Your task to perform on an android device: open app "Google Maps" Image 0: 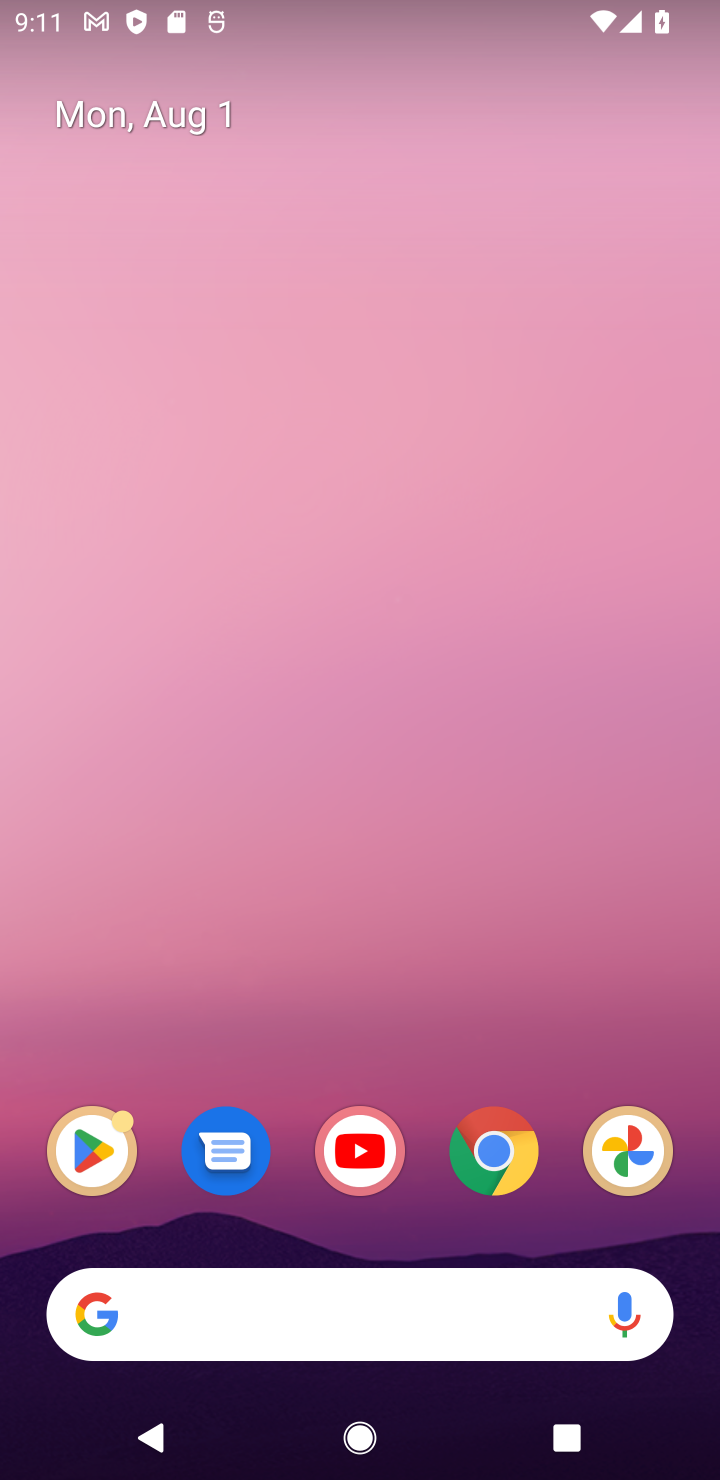
Step 0: drag from (507, 1419) to (416, 585)
Your task to perform on an android device: open app "Google Maps" Image 1: 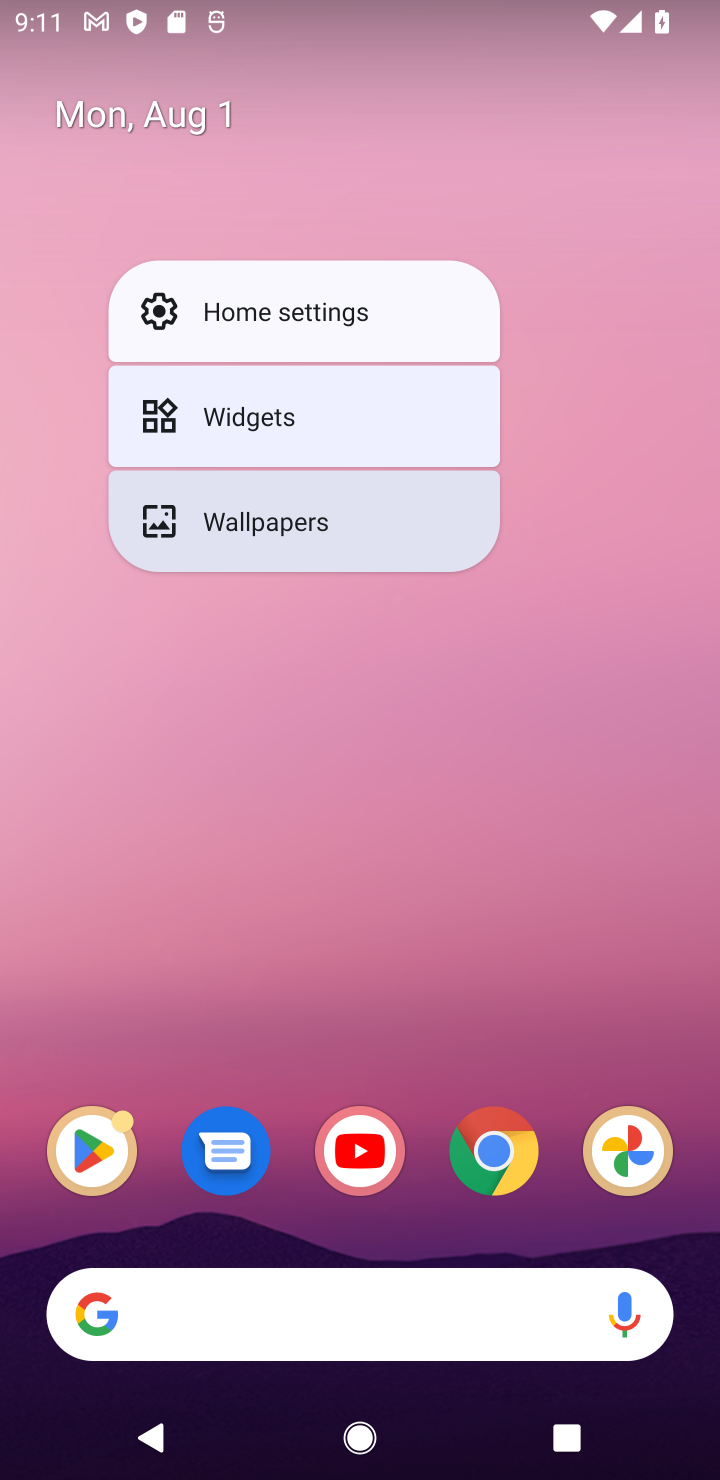
Step 1: drag from (482, 821) to (320, 302)
Your task to perform on an android device: open app "Google Maps" Image 2: 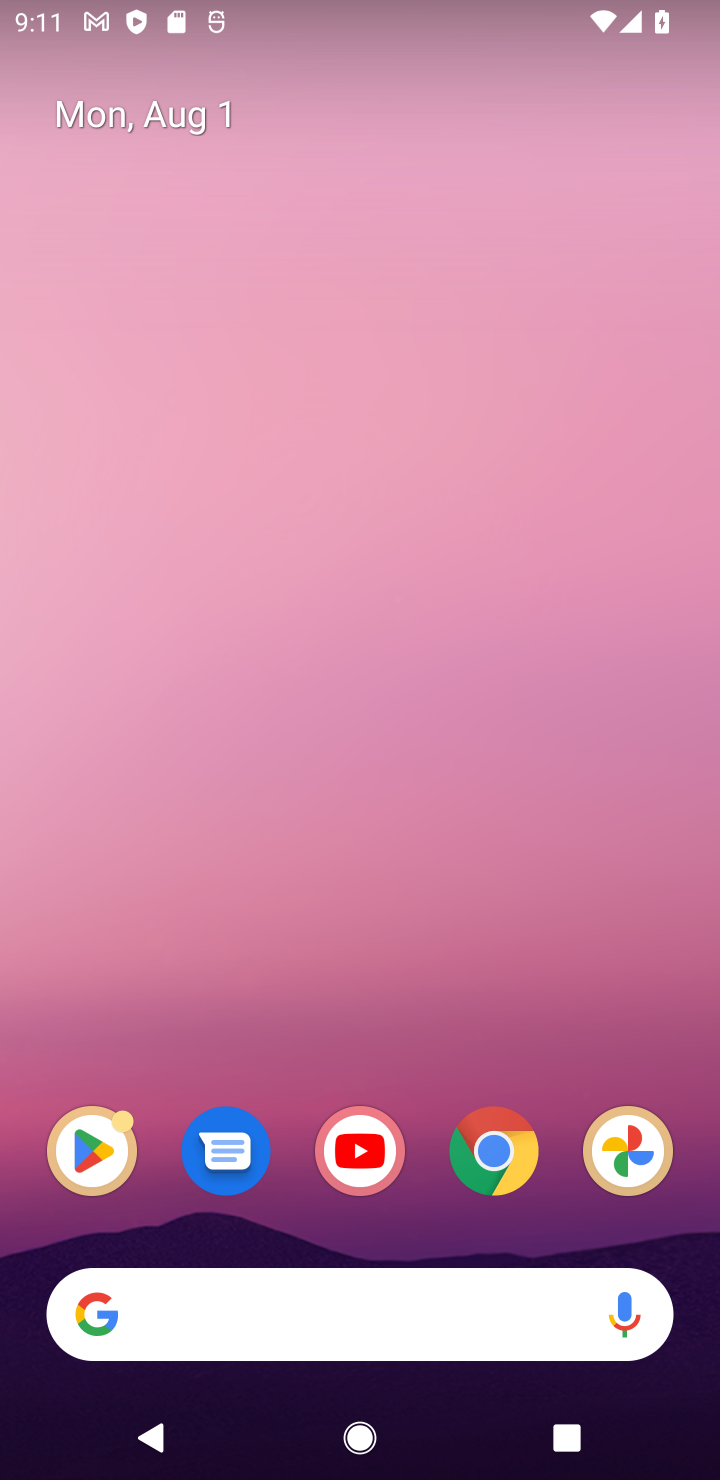
Step 2: drag from (223, 217) to (252, 430)
Your task to perform on an android device: open app "Google Maps" Image 3: 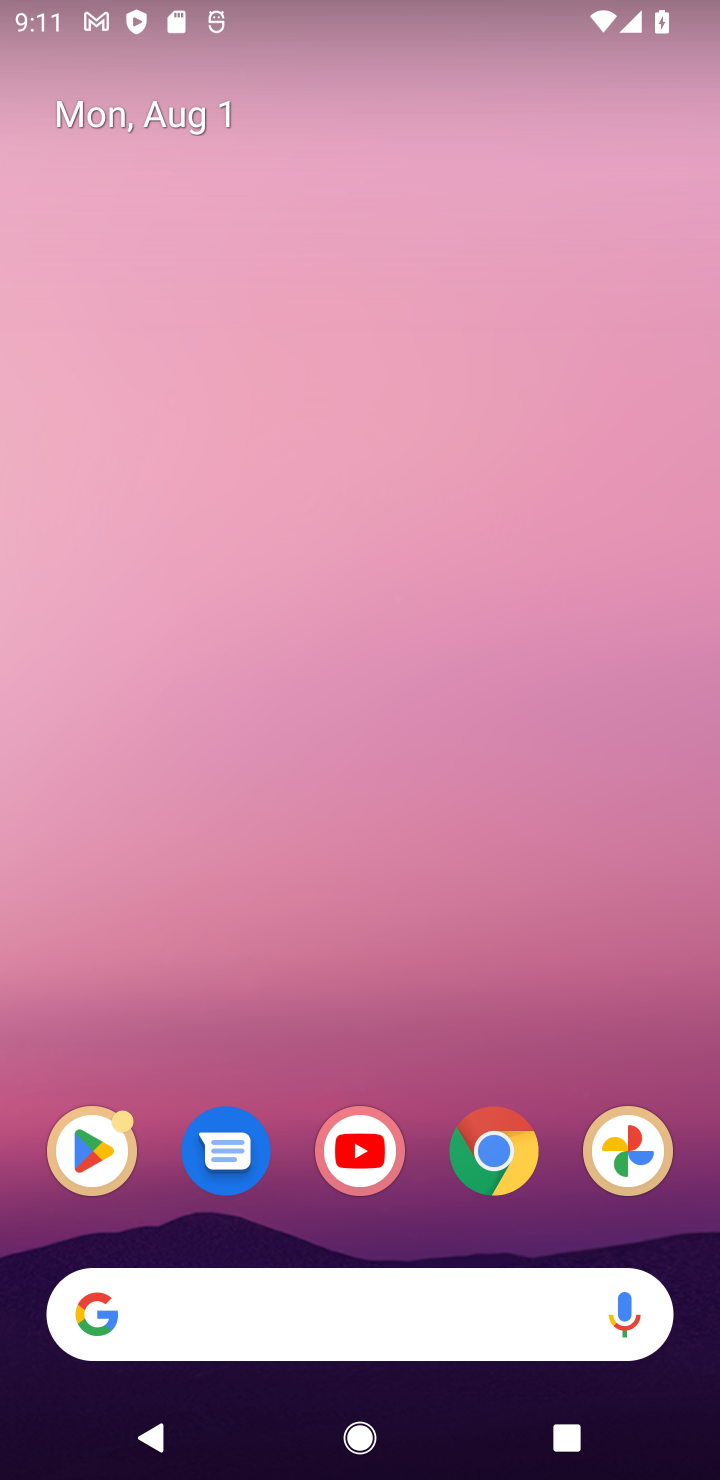
Step 3: drag from (357, 855) to (322, 319)
Your task to perform on an android device: open app "Google Maps" Image 4: 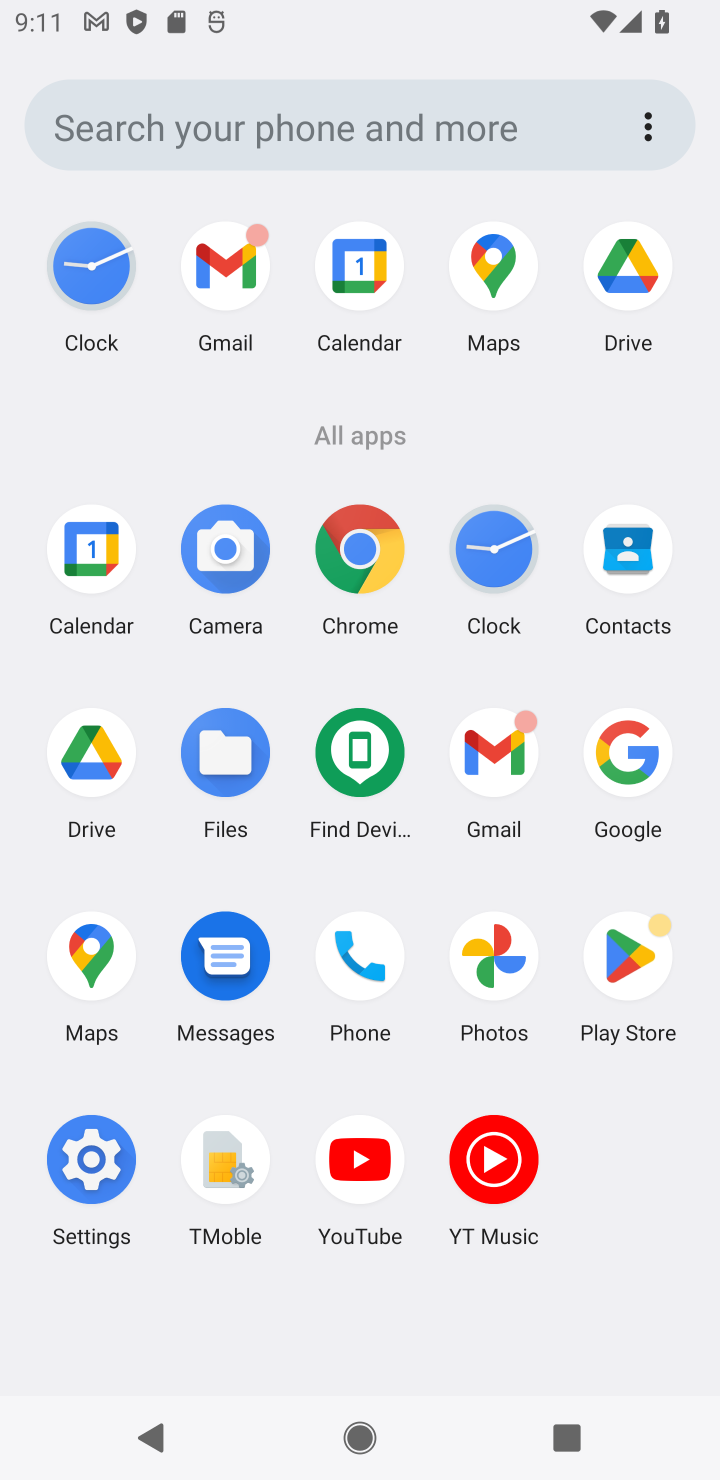
Step 4: drag from (427, 1167) to (361, 151)
Your task to perform on an android device: open app "Google Maps" Image 5: 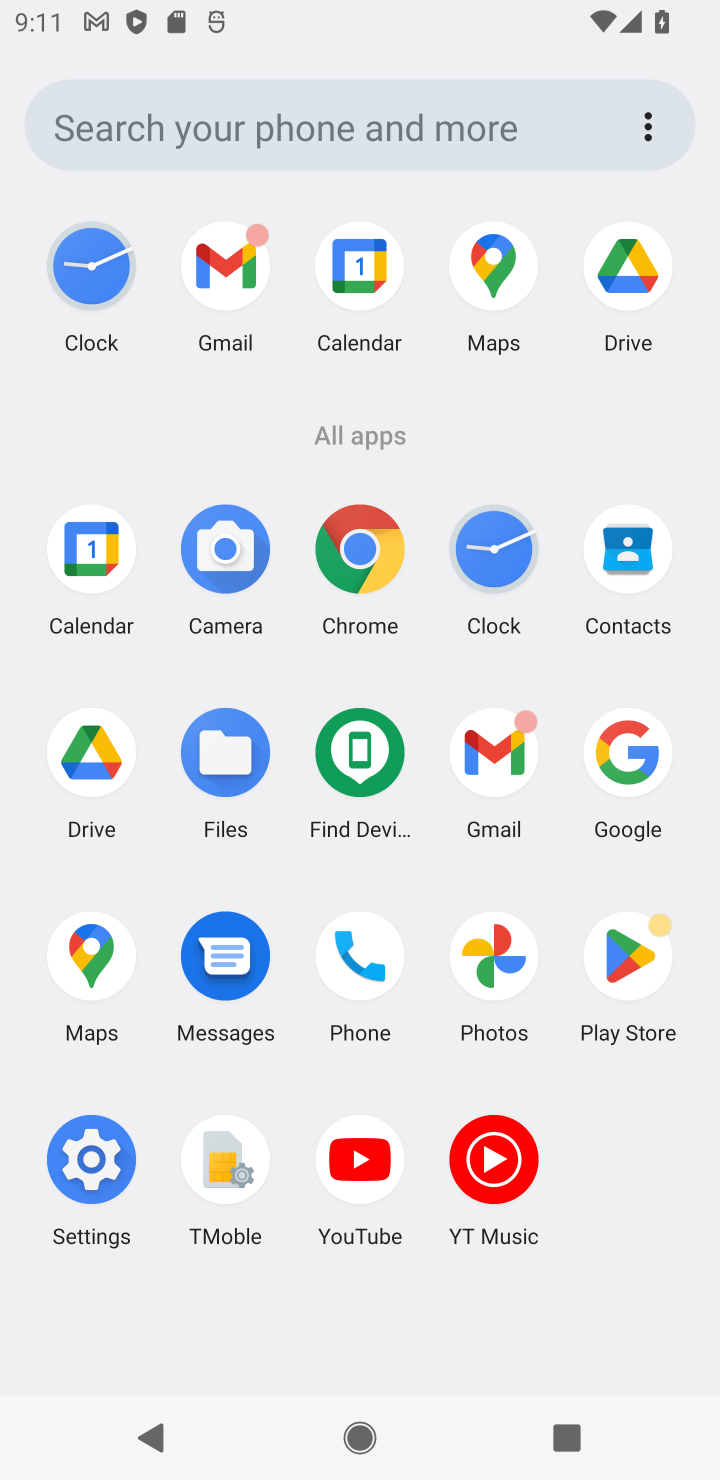
Step 5: click (88, 948)
Your task to perform on an android device: open app "Google Maps" Image 6: 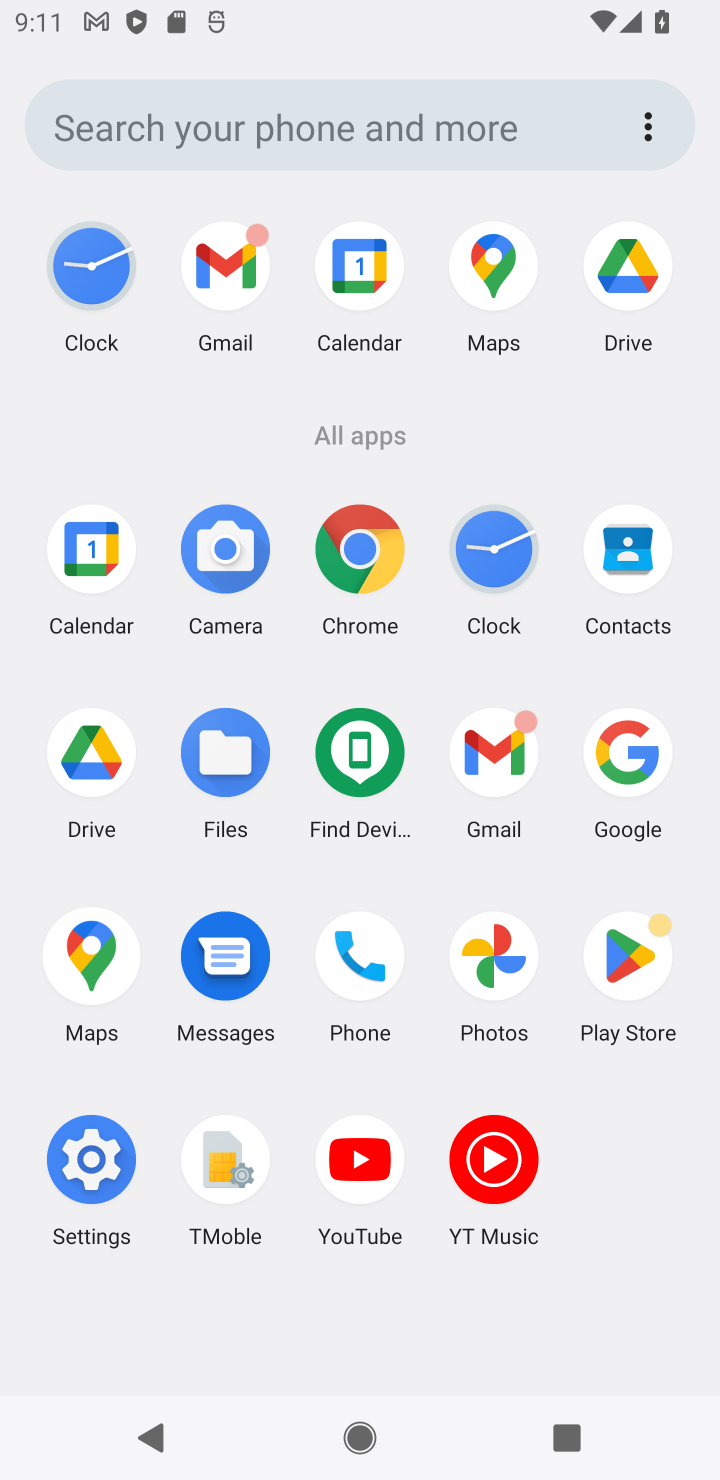
Step 6: click (91, 952)
Your task to perform on an android device: open app "Google Maps" Image 7: 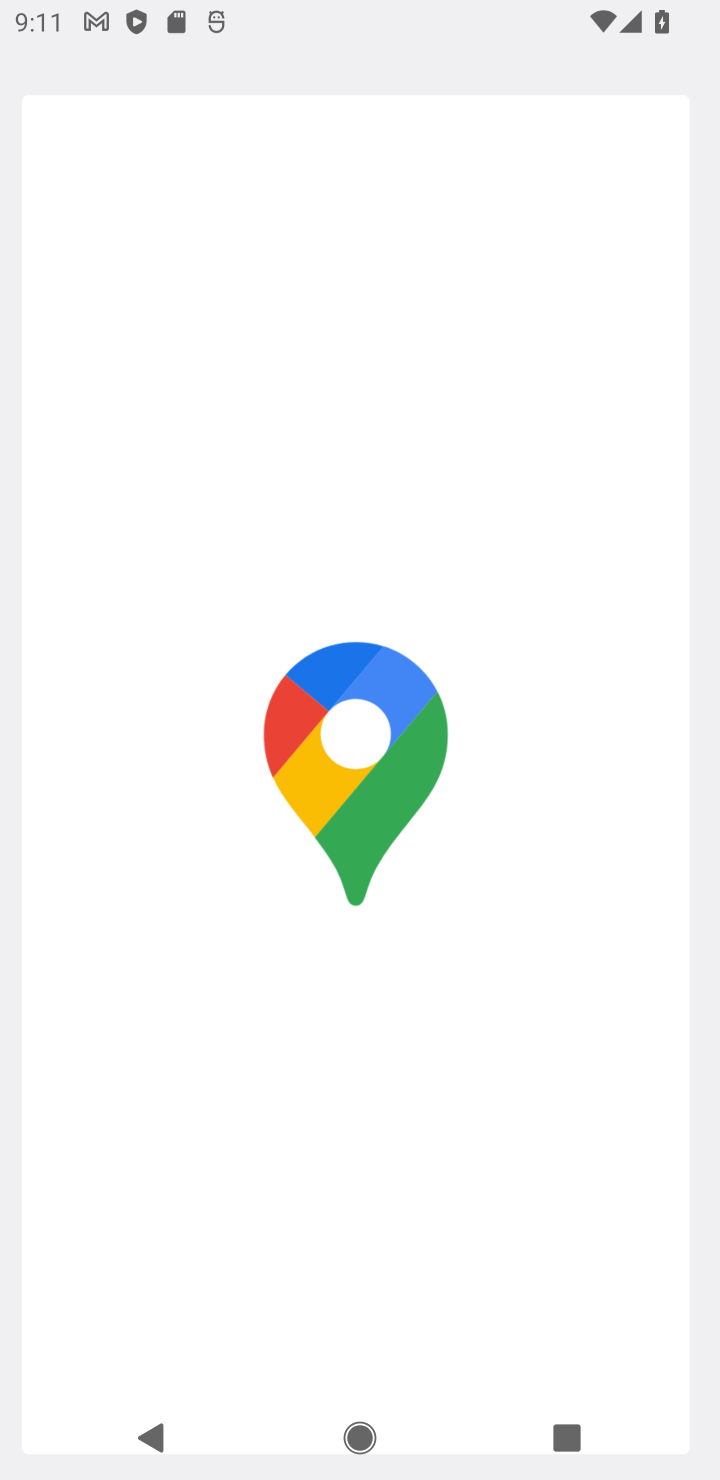
Step 7: click (109, 938)
Your task to perform on an android device: open app "Google Maps" Image 8: 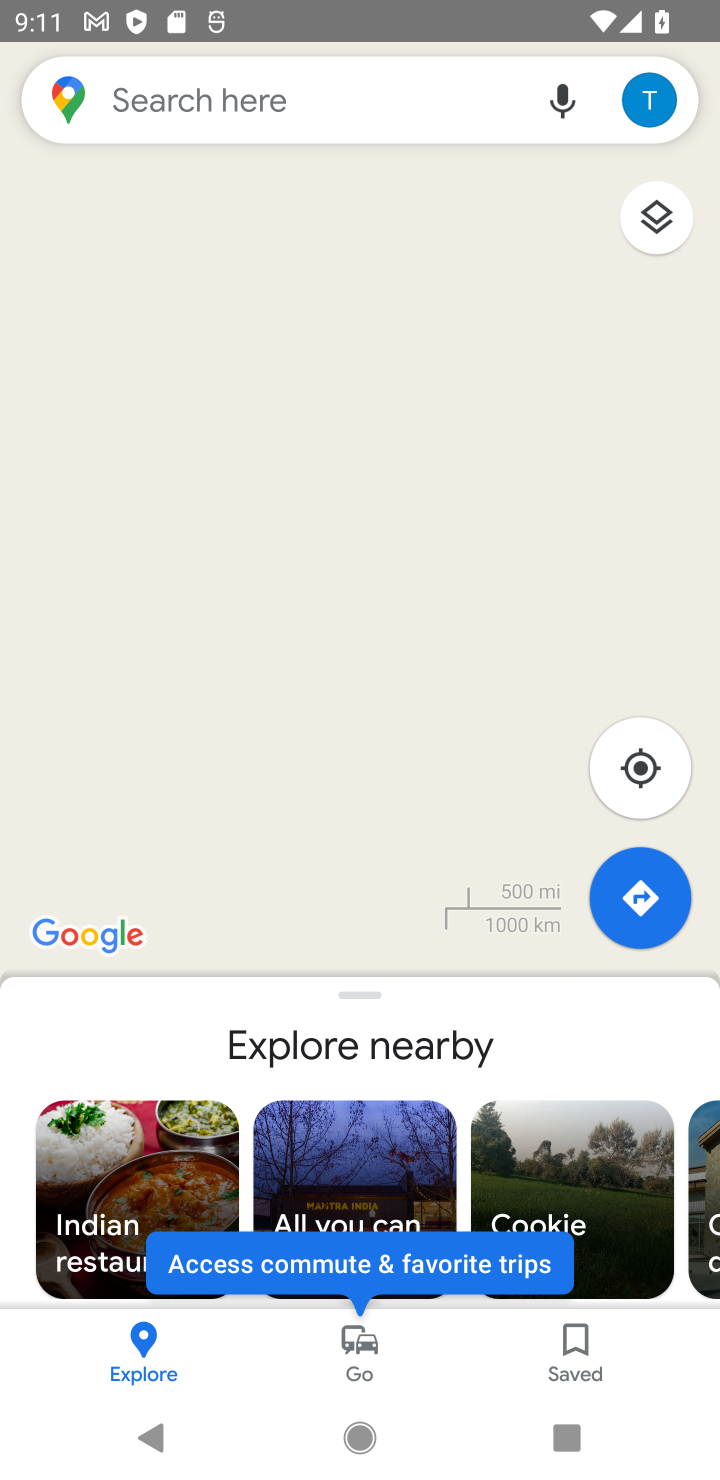
Step 8: click (131, 92)
Your task to perform on an android device: open app "Google Maps" Image 9: 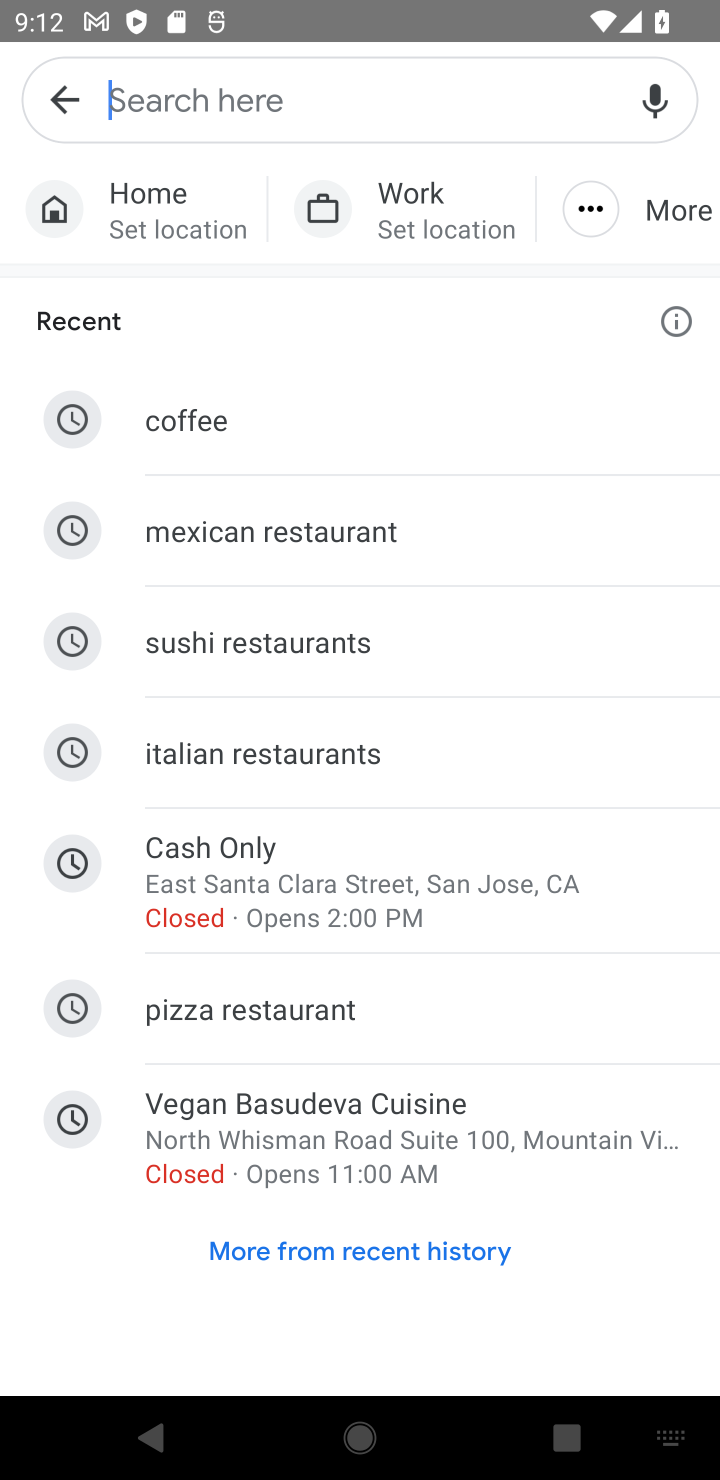
Step 9: click (148, 109)
Your task to perform on an android device: open app "Google Maps" Image 10: 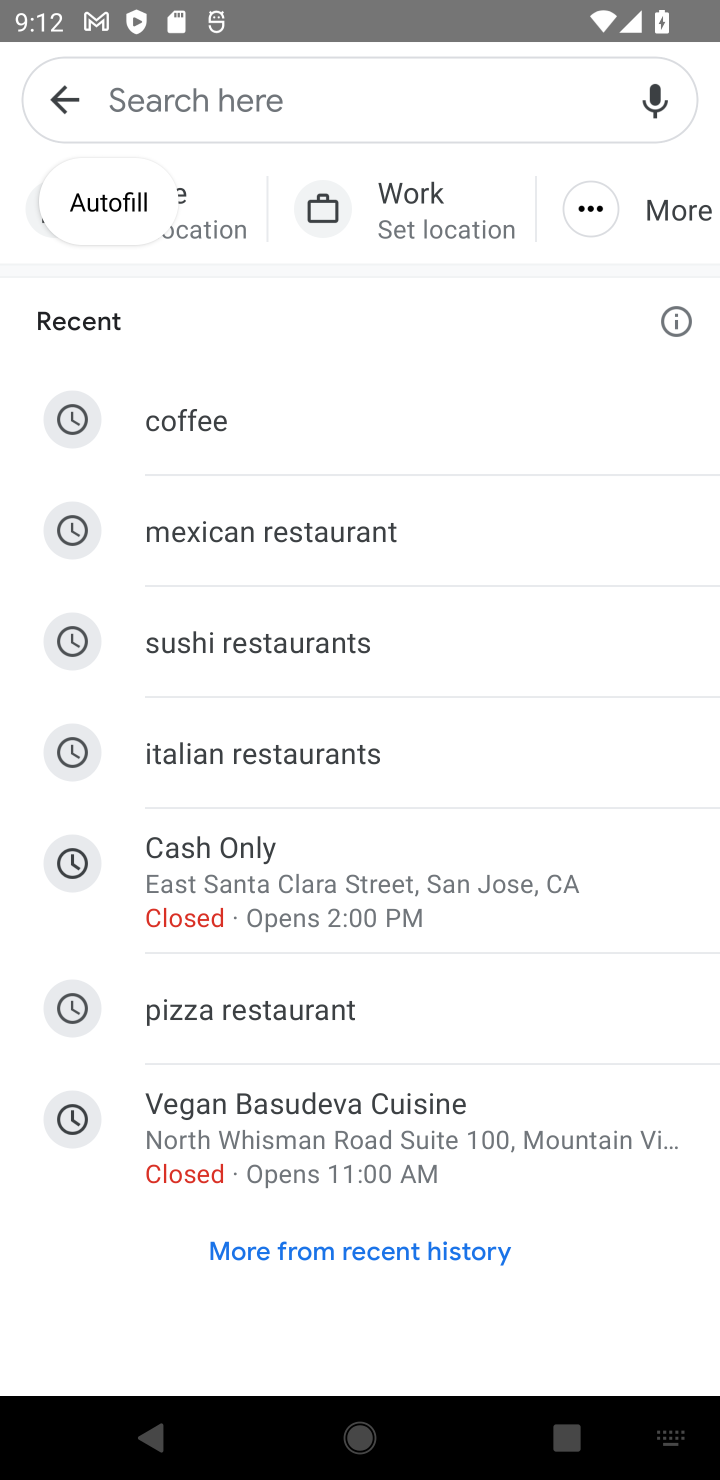
Step 10: type "Google maps"
Your task to perform on an android device: open app "Google Maps" Image 11: 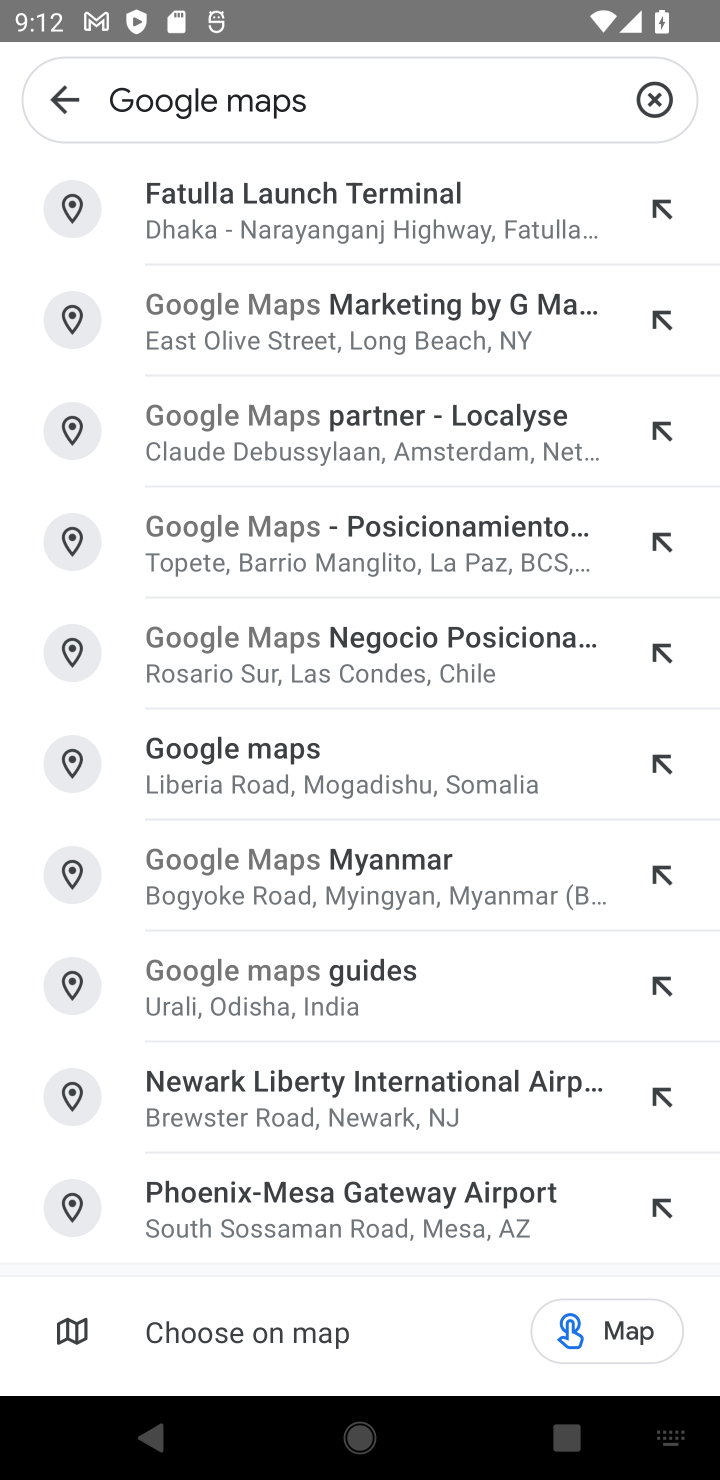
Step 11: click (271, 321)
Your task to perform on an android device: open app "Google Maps" Image 12: 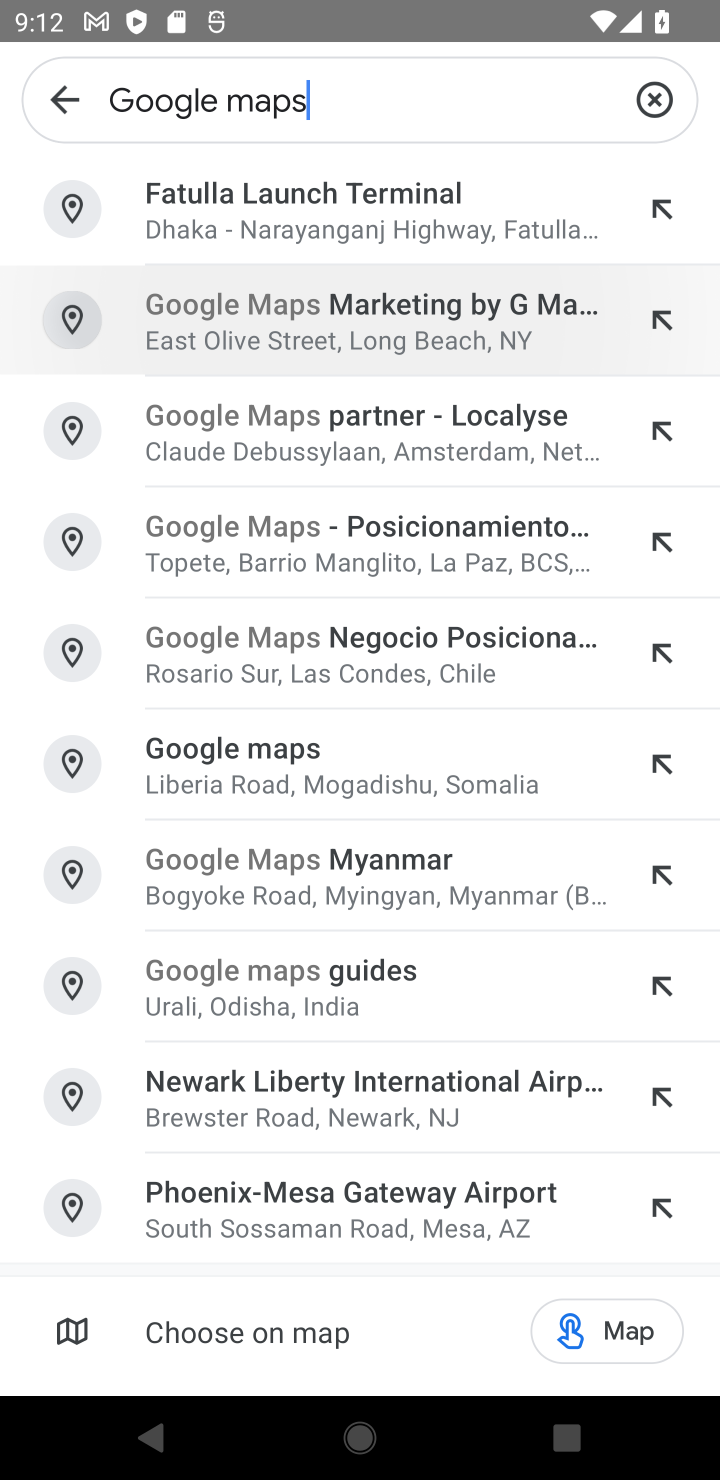
Step 12: click (271, 321)
Your task to perform on an android device: open app "Google Maps" Image 13: 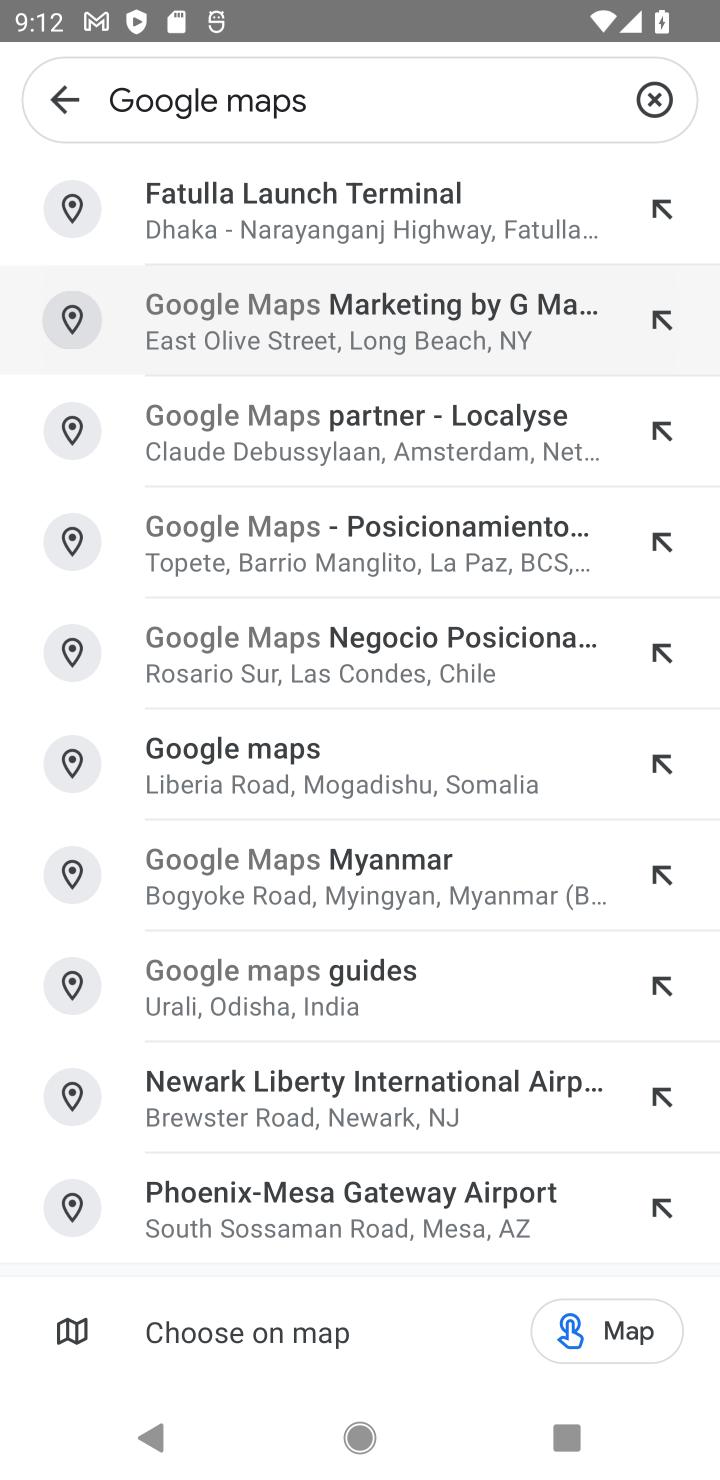
Step 13: click (269, 319)
Your task to perform on an android device: open app "Google Maps" Image 14: 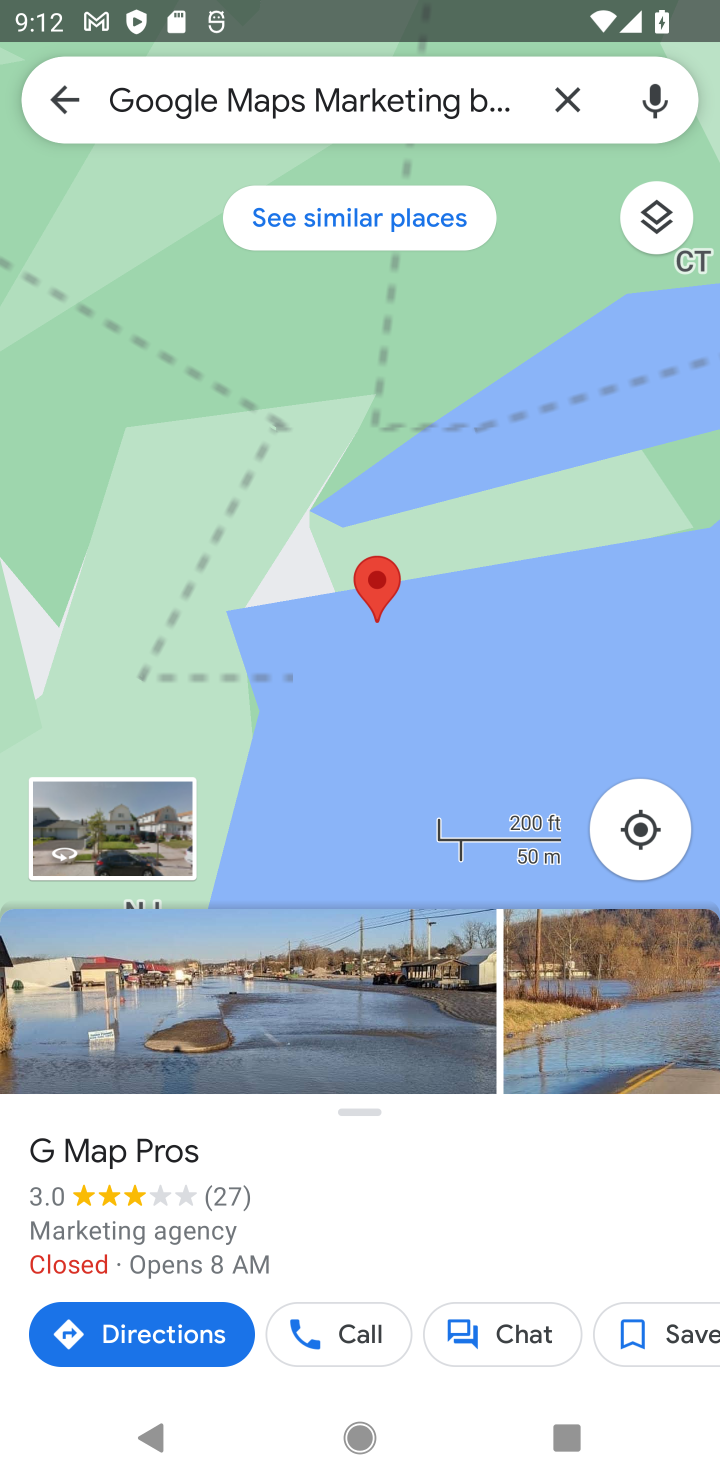
Step 14: task complete